Your task to perform on an android device: check battery use Image 0: 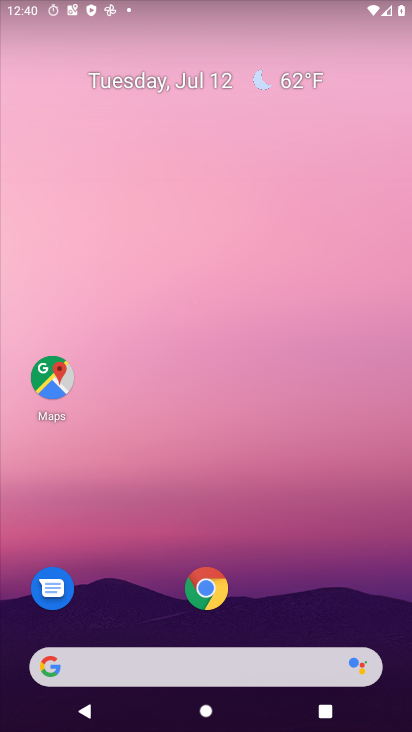
Step 0: drag from (208, 583) to (191, 133)
Your task to perform on an android device: check battery use Image 1: 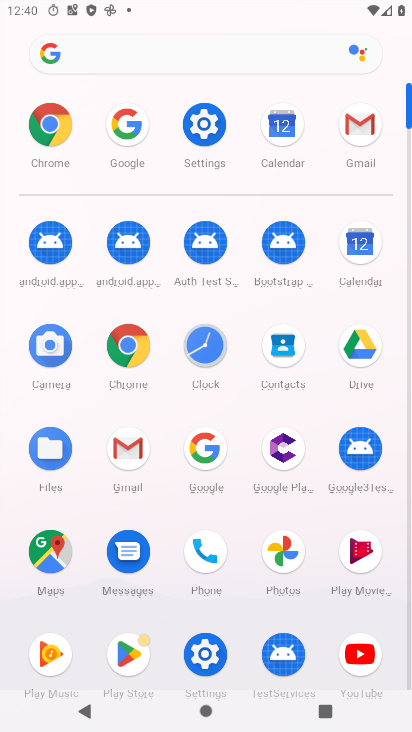
Step 1: click (204, 139)
Your task to perform on an android device: check battery use Image 2: 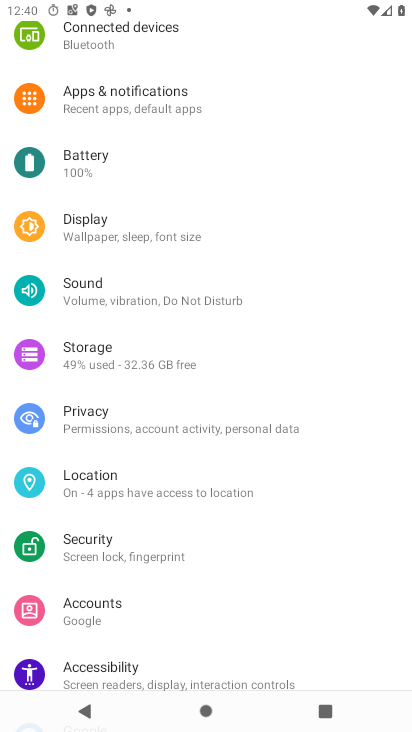
Step 2: click (137, 173)
Your task to perform on an android device: check battery use Image 3: 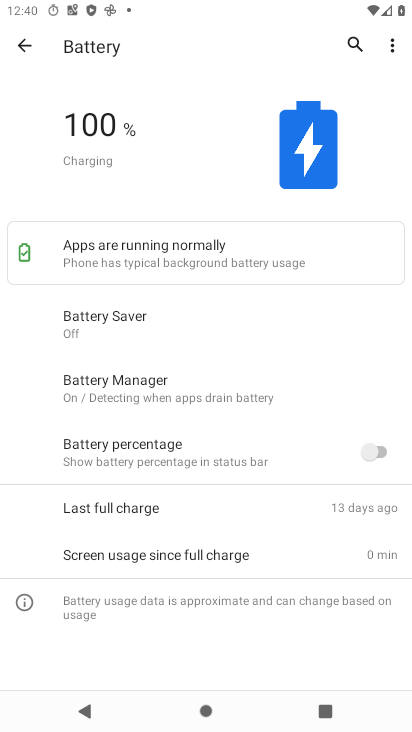
Step 3: task complete